Your task to perform on an android device: see sites visited before in the chrome app Image 0: 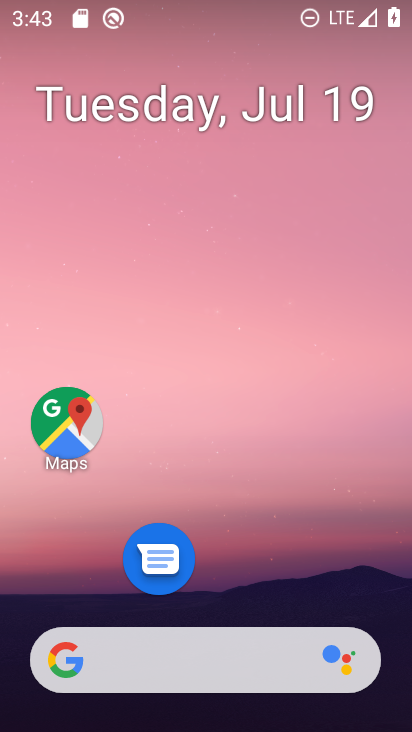
Step 0: drag from (182, 629) to (227, 194)
Your task to perform on an android device: see sites visited before in the chrome app Image 1: 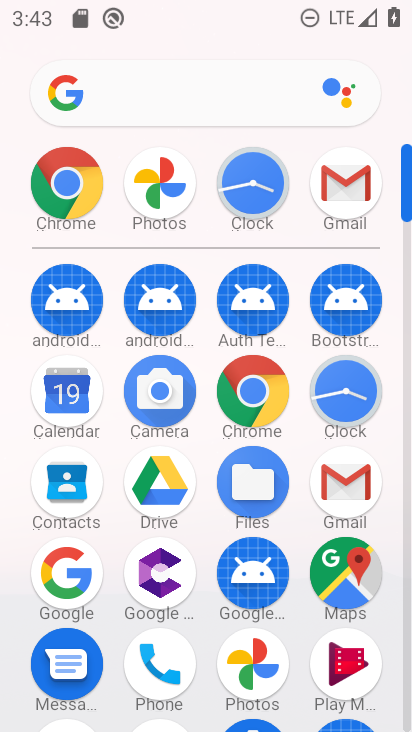
Step 1: click (250, 409)
Your task to perform on an android device: see sites visited before in the chrome app Image 2: 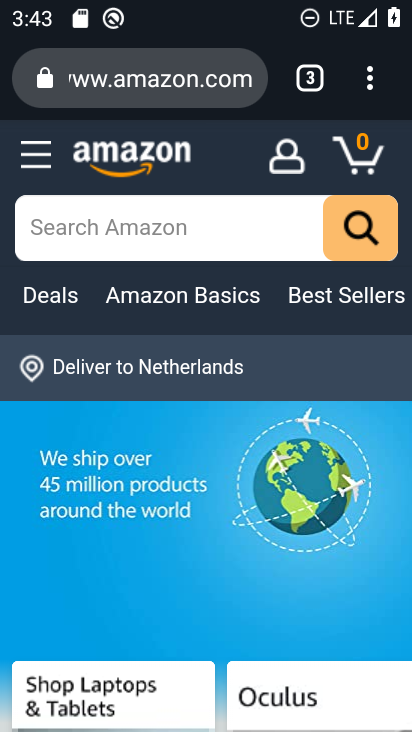
Step 2: click (373, 81)
Your task to perform on an android device: see sites visited before in the chrome app Image 3: 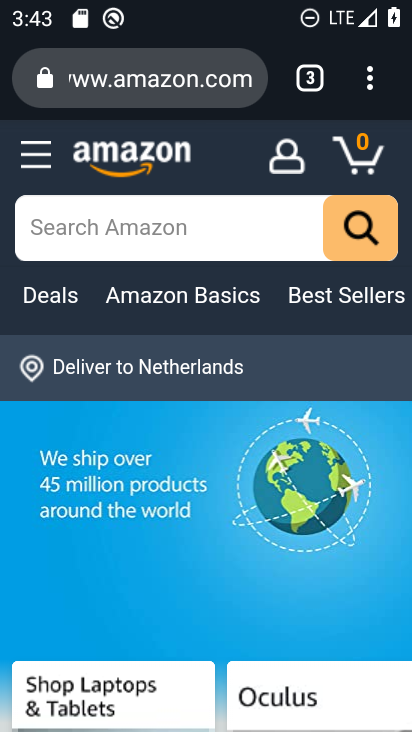
Step 3: click (370, 73)
Your task to perform on an android device: see sites visited before in the chrome app Image 4: 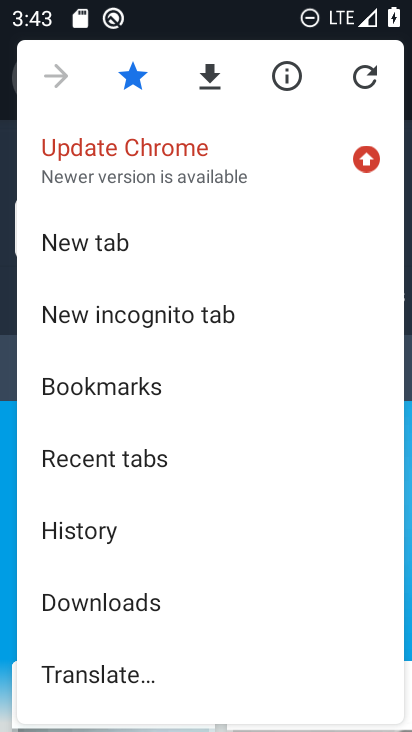
Step 4: click (83, 539)
Your task to perform on an android device: see sites visited before in the chrome app Image 5: 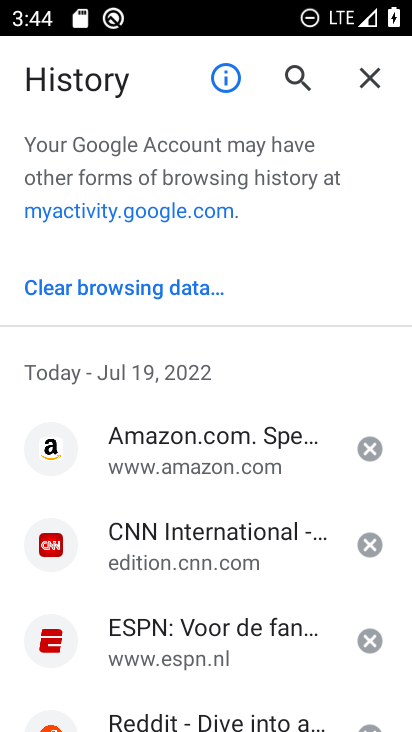
Step 5: task complete